Your task to perform on an android device: toggle improve location accuracy Image 0: 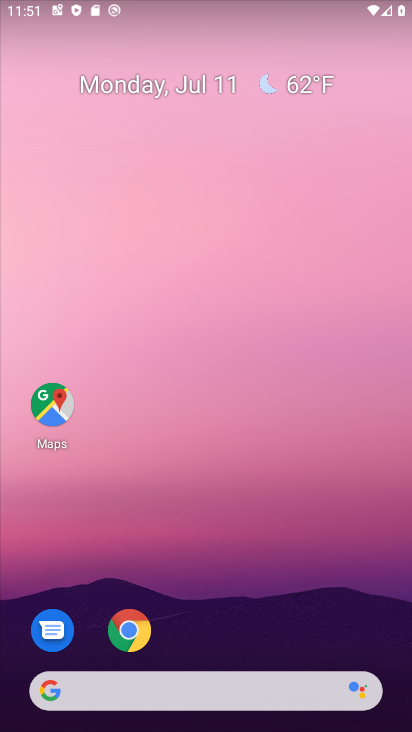
Step 0: drag from (316, 694) to (399, 196)
Your task to perform on an android device: toggle improve location accuracy Image 1: 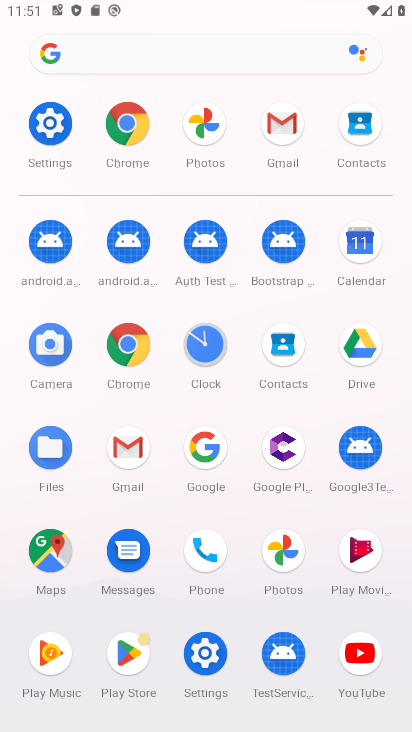
Step 1: click (49, 118)
Your task to perform on an android device: toggle improve location accuracy Image 2: 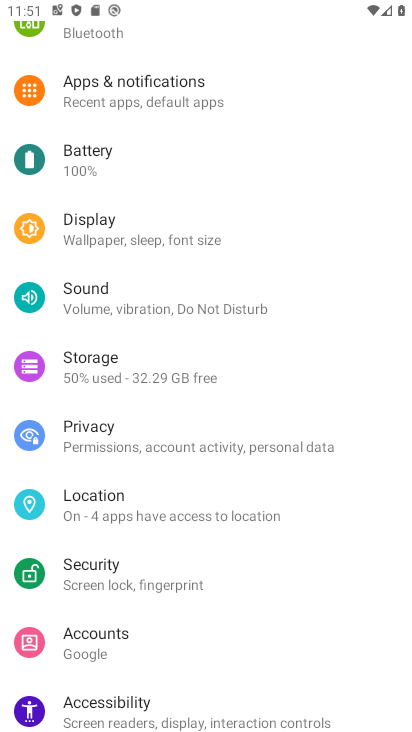
Step 2: click (120, 504)
Your task to perform on an android device: toggle improve location accuracy Image 3: 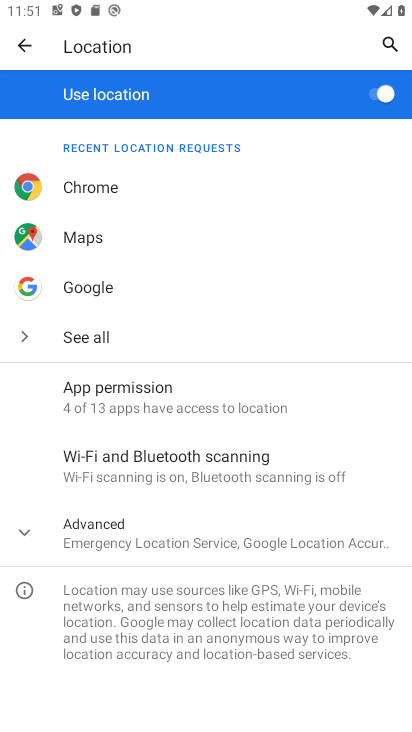
Step 3: click (135, 539)
Your task to perform on an android device: toggle improve location accuracy Image 4: 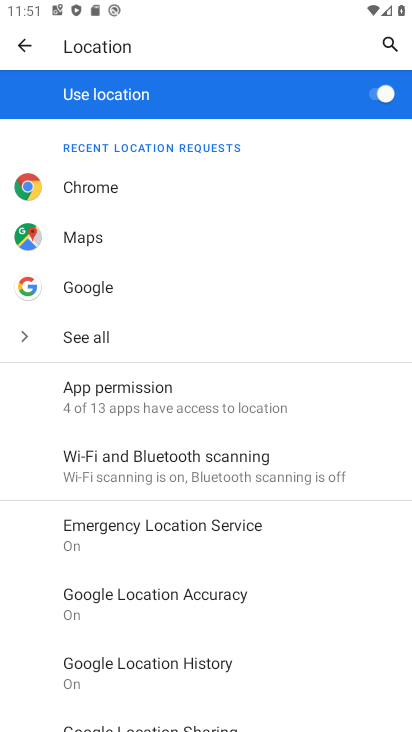
Step 4: click (211, 606)
Your task to perform on an android device: toggle improve location accuracy Image 5: 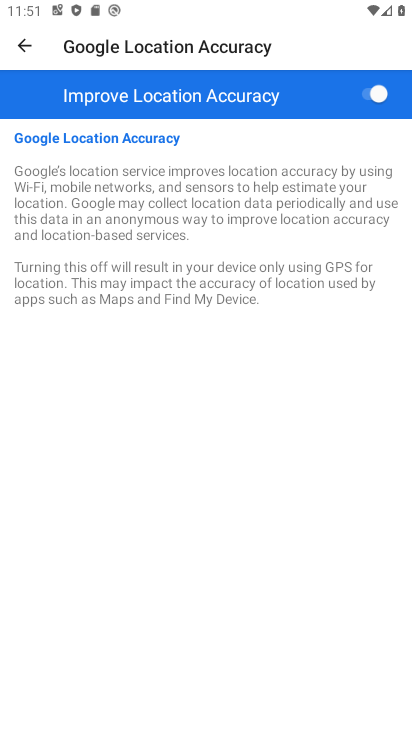
Step 5: click (363, 87)
Your task to perform on an android device: toggle improve location accuracy Image 6: 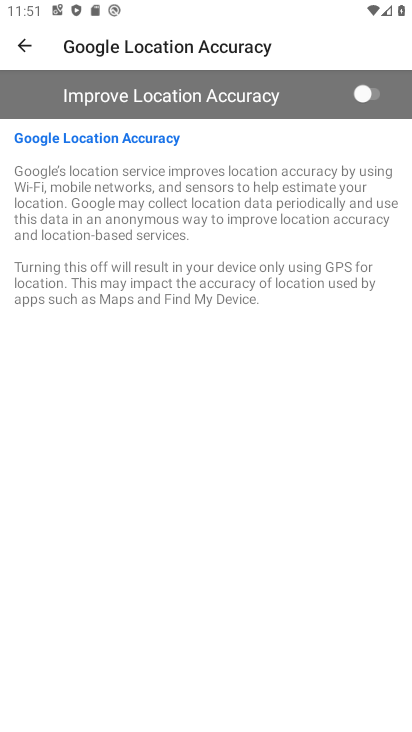
Step 6: task complete